Your task to perform on an android device: Go to CNN.com Image 0: 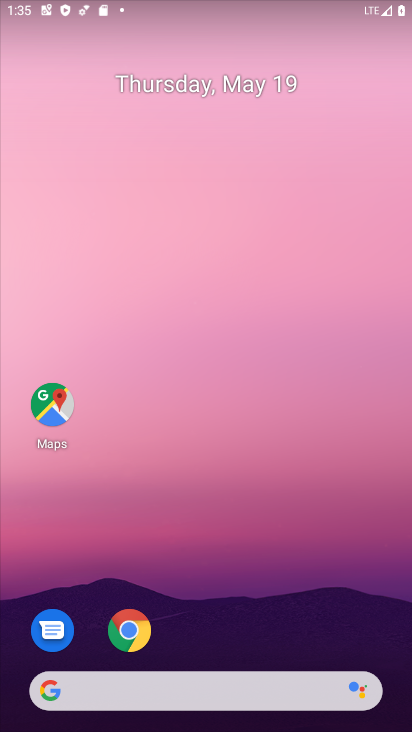
Step 0: click (142, 632)
Your task to perform on an android device: Go to CNN.com Image 1: 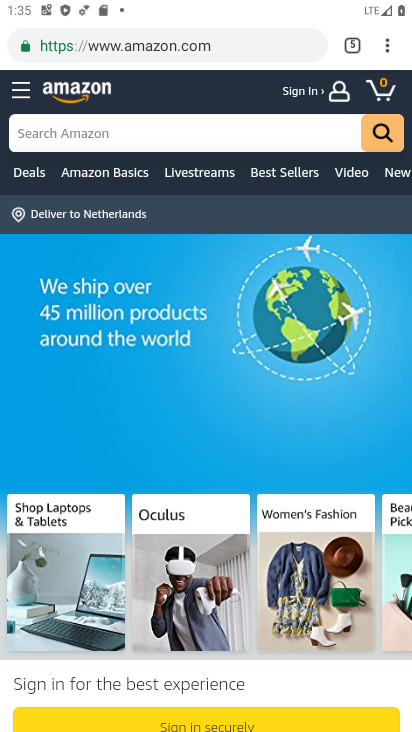
Step 1: click (355, 45)
Your task to perform on an android device: Go to CNN.com Image 2: 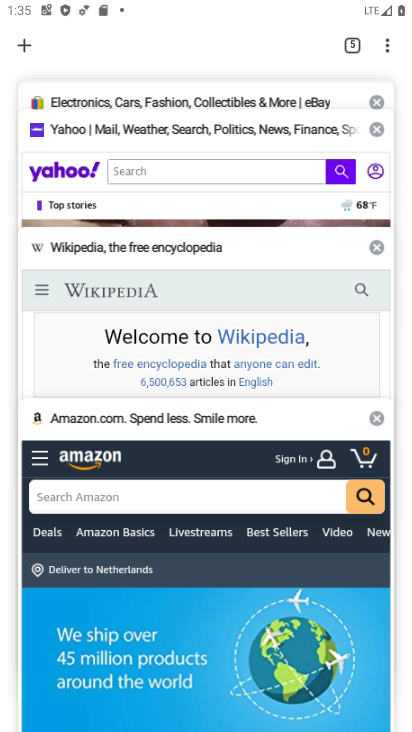
Step 2: drag from (238, 119) to (214, 508)
Your task to perform on an android device: Go to CNN.com Image 3: 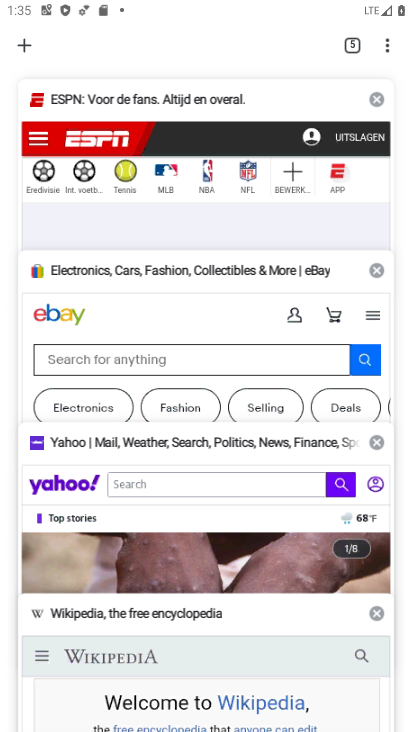
Step 3: click (29, 32)
Your task to perform on an android device: Go to CNN.com Image 4: 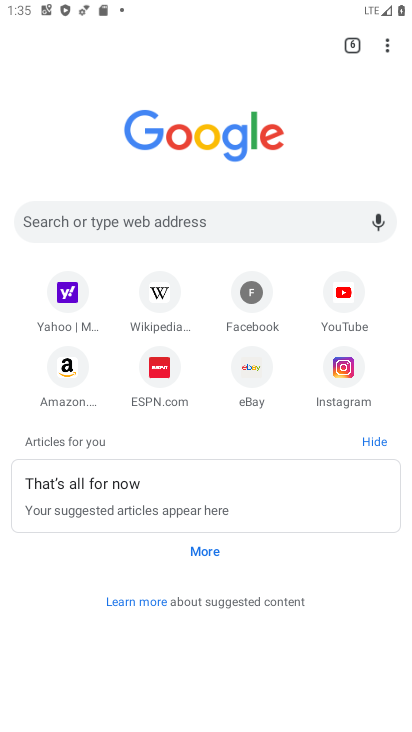
Step 4: click (150, 229)
Your task to perform on an android device: Go to CNN.com Image 5: 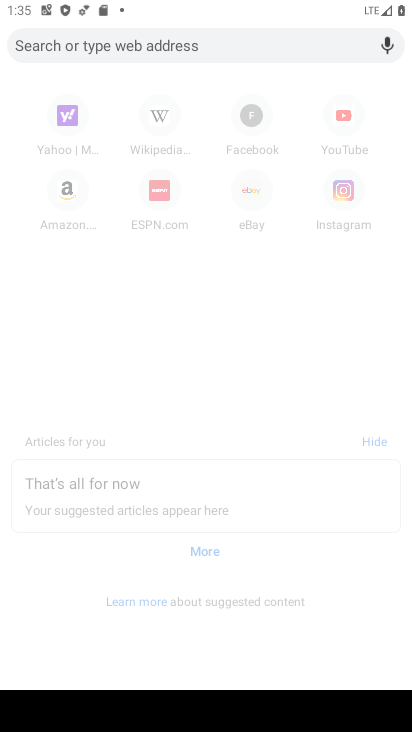
Step 5: type "cnn"
Your task to perform on an android device: Go to CNN.com Image 6: 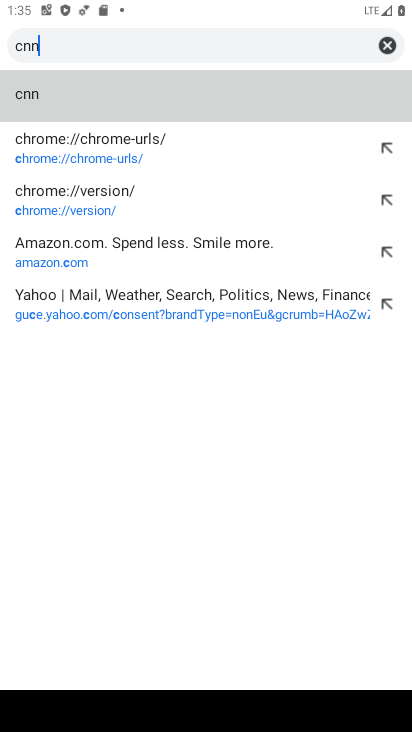
Step 6: type ""
Your task to perform on an android device: Go to CNN.com Image 7: 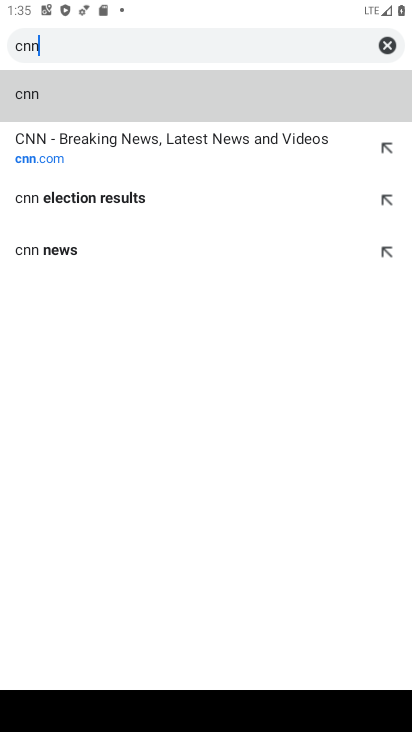
Step 7: click (160, 136)
Your task to perform on an android device: Go to CNN.com Image 8: 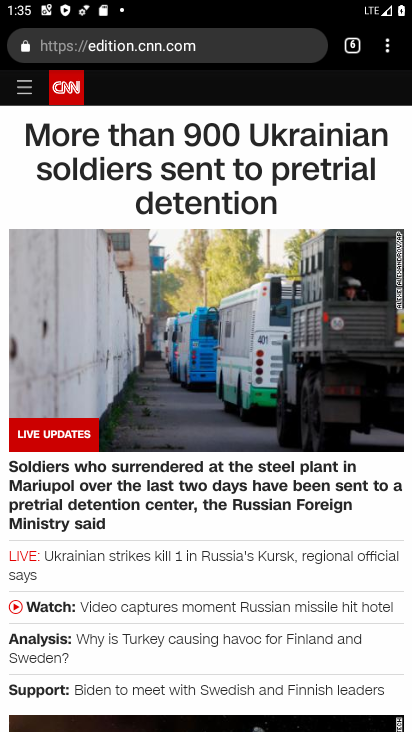
Step 8: task complete